Your task to perform on an android device: Open display settings Image 0: 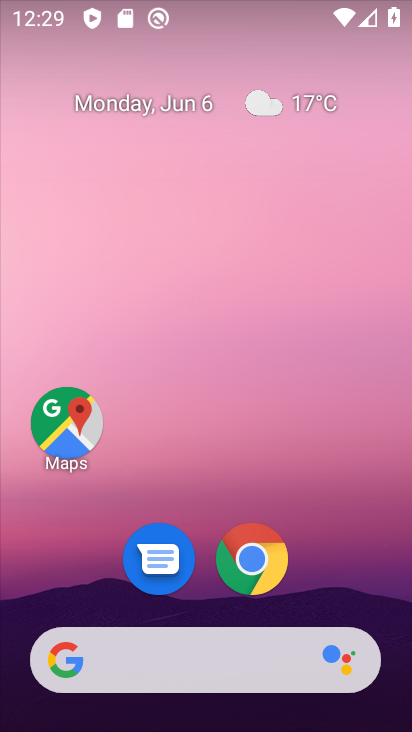
Step 0: drag from (200, 668) to (261, 201)
Your task to perform on an android device: Open display settings Image 1: 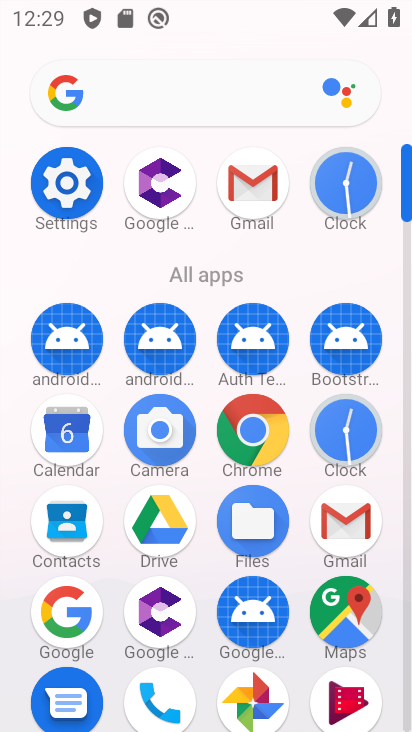
Step 1: drag from (181, 581) to (181, 284)
Your task to perform on an android device: Open display settings Image 2: 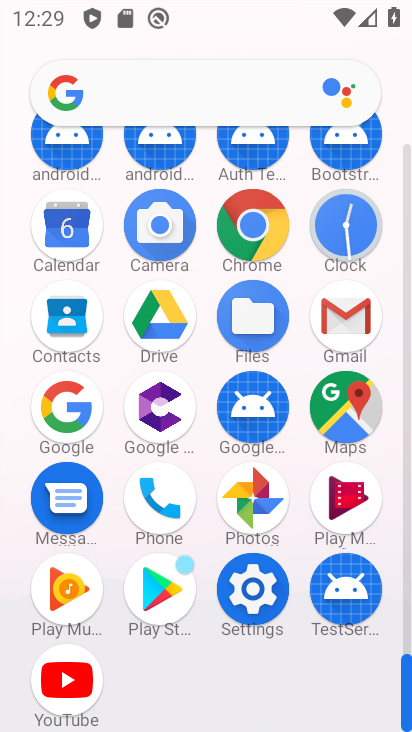
Step 2: click (269, 599)
Your task to perform on an android device: Open display settings Image 3: 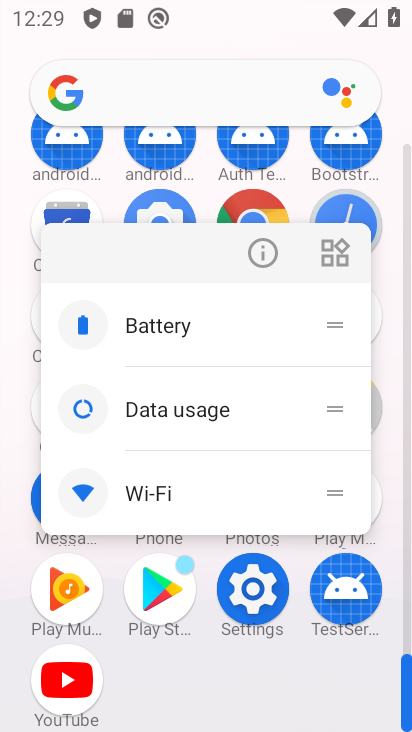
Step 3: click (269, 599)
Your task to perform on an android device: Open display settings Image 4: 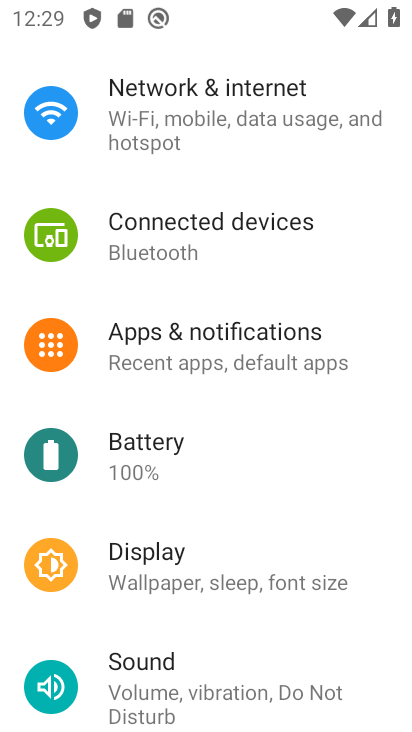
Step 4: drag from (257, 471) to (268, 671)
Your task to perform on an android device: Open display settings Image 5: 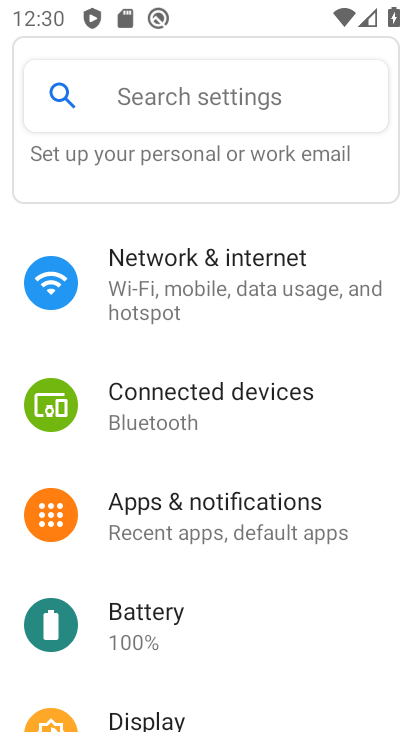
Step 5: drag from (264, 648) to (329, 321)
Your task to perform on an android device: Open display settings Image 6: 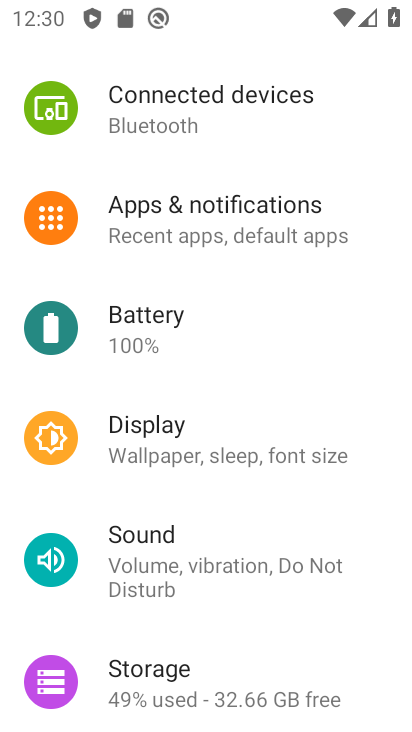
Step 6: click (275, 431)
Your task to perform on an android device: Open display settings Image 7: 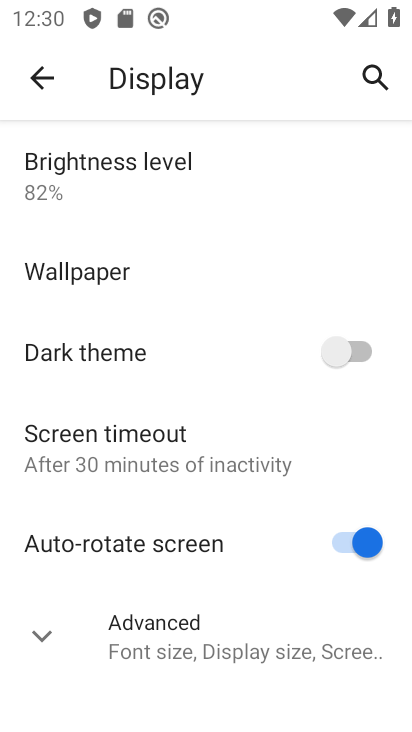
Step 7: click (268, 612)
Your task to perform on an android device: Open display settings Image 8: 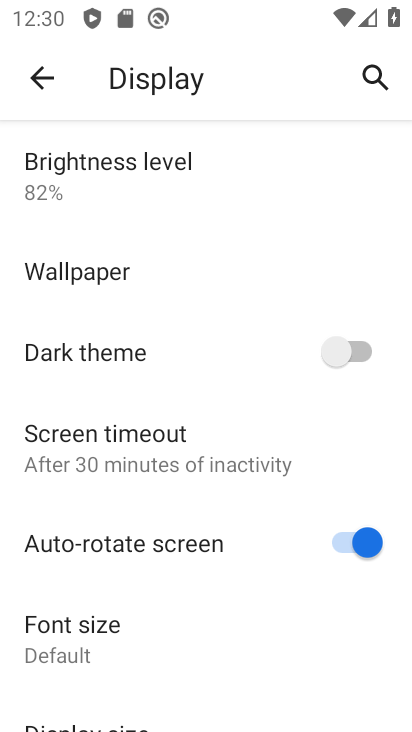
Step 8: task complete